Your task to perform on an android device: turn on location history Image 0: 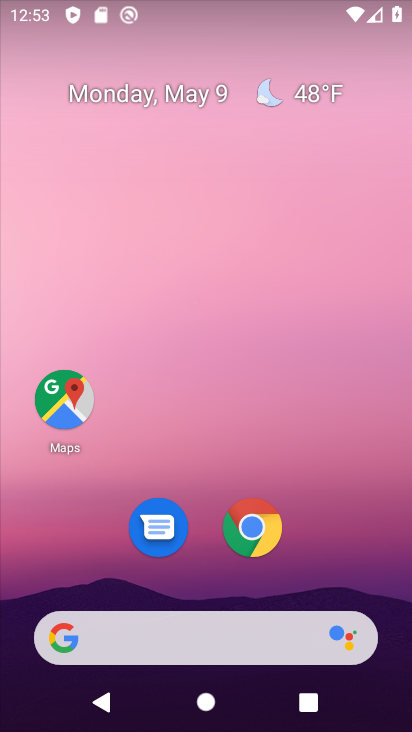
Step 0: drag from (224, 595) to (274, 76)
Your task to perform on an android device: turn on location history Image 1: 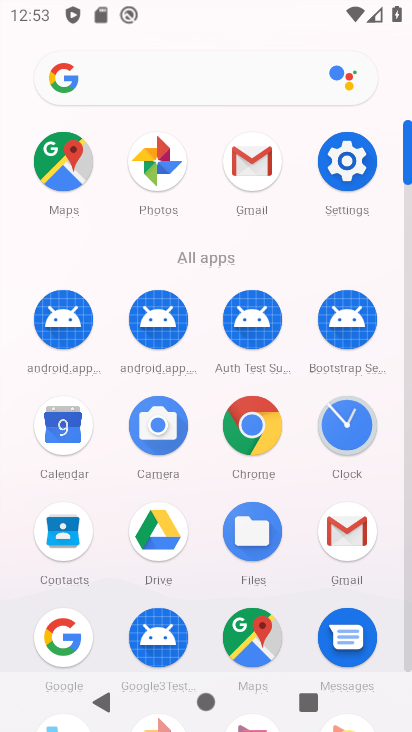
Step 1: click (338, 175)
Your task to perform on an android device: turn on location history Image 2: 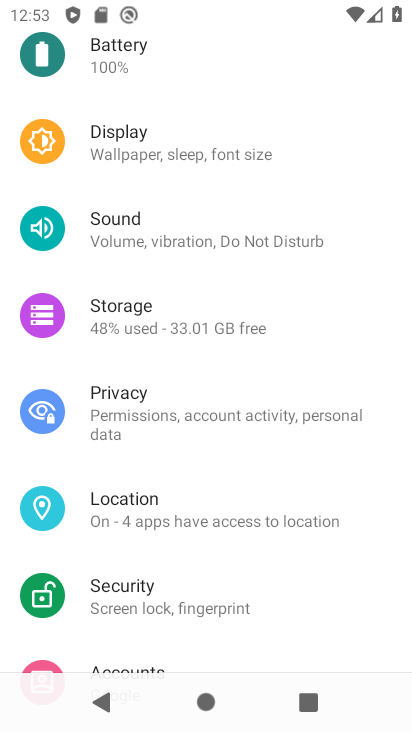
Step 2: click (141, 502)
Your task to perform on an android device: turn on location history Image 3: 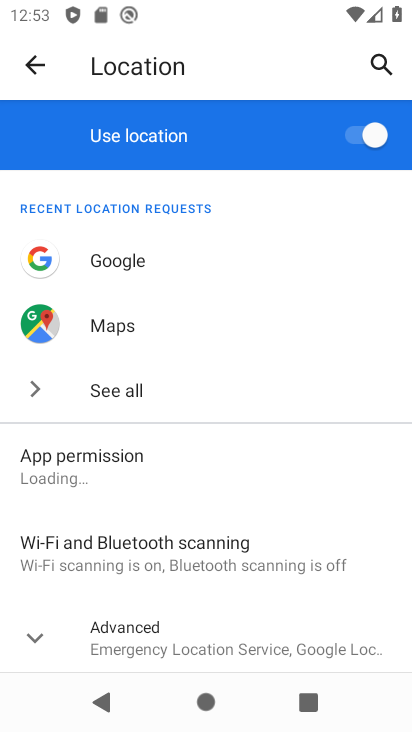
Step 3: drag from (197, 576) to (209, 305)
Your task to perform on an android device: turn on location history Image 4: 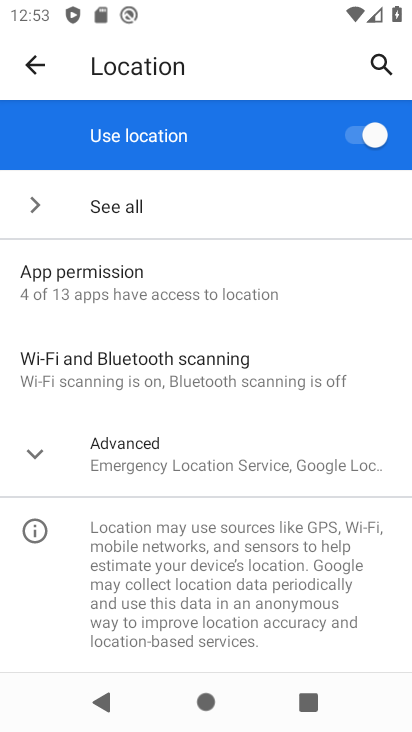
Step 4: click (29, 445)
Your task to perform on an android device: turn on location history Image 5: 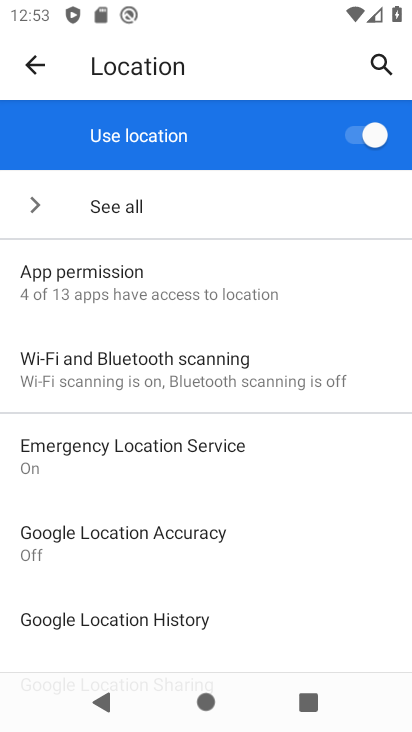
Step 5: click (88, 612)
Your task to perform on an android device: turn on location history Image 6: 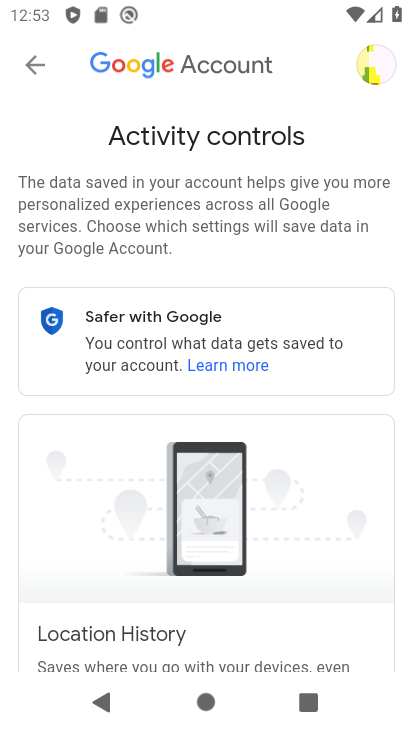
Step 6: drag from (139, 586) to (172, 263)
Your task to perform on an android device: turn on location history Image 7: 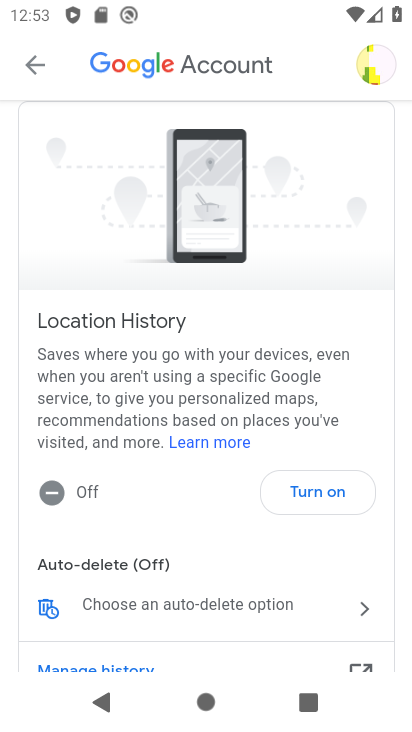
Step 7: click (299, 492)
Your task to perform on an android device: turn on location history Image 8: 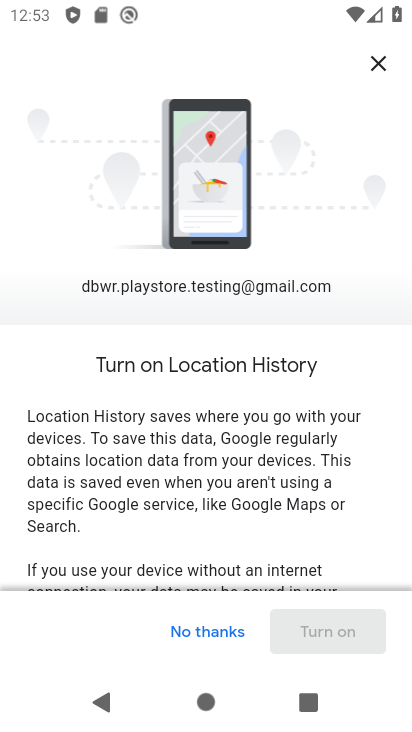
Step 8: drag from (269, 547) to (287, 157)
Your task to perform on an android device: turn on location history Image 9: 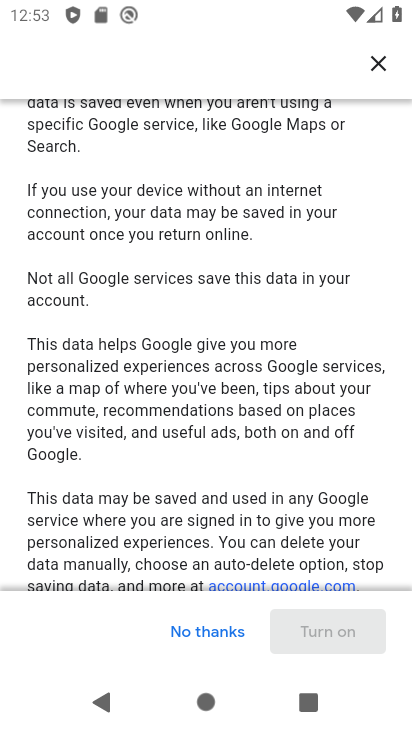
Step 9: drag from (279, 538) to (296, 129)
Your task to perform on an android device: turn on location history Image 10: 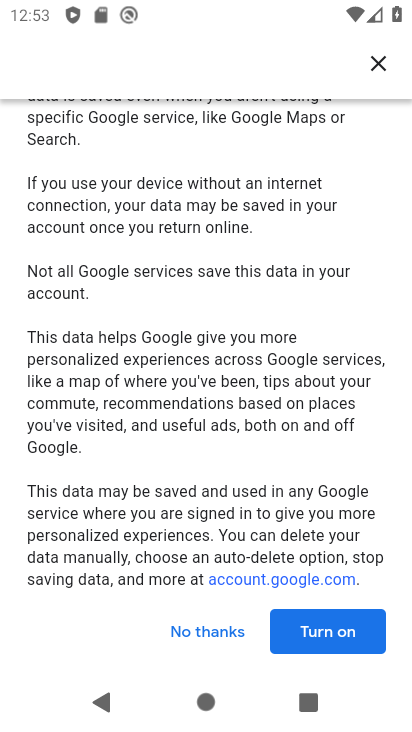
Step 10: click (333, 646)
Your task to perform on an android device: turn on location history Image 11: 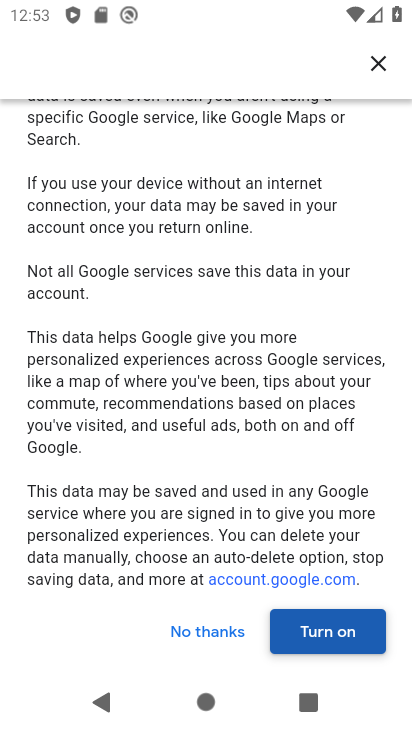
Step 11: click (326, 644)
Your task to perform on an android device: turn on location history Image 12: 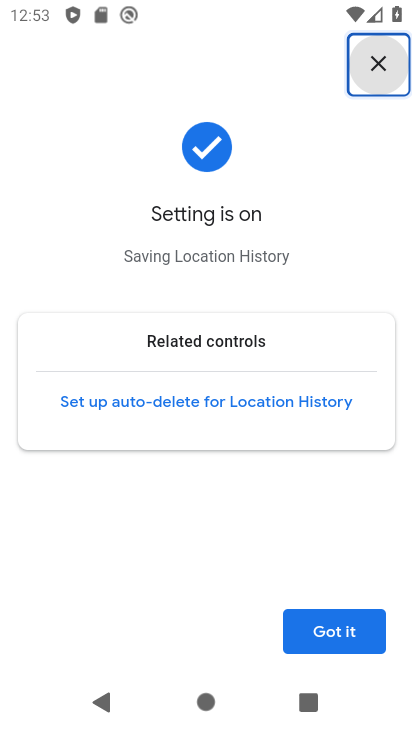
Step 12: click (321, 625)
Your task to perform on an android device: turn on location history Image 13: 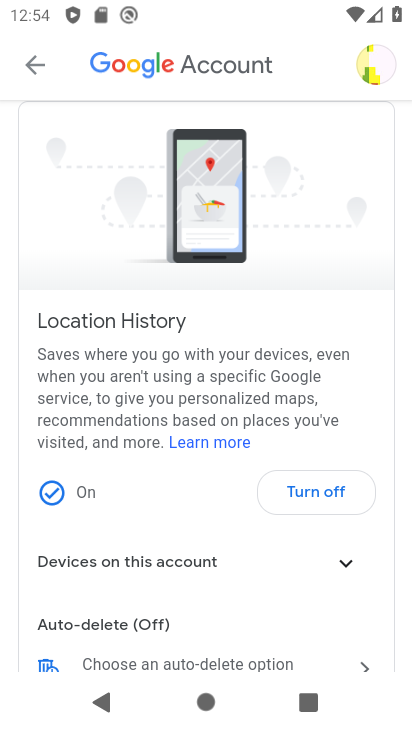
Step 13: task complete